Your task to perform on an android device: set default search engine in the chrome app Image 0: 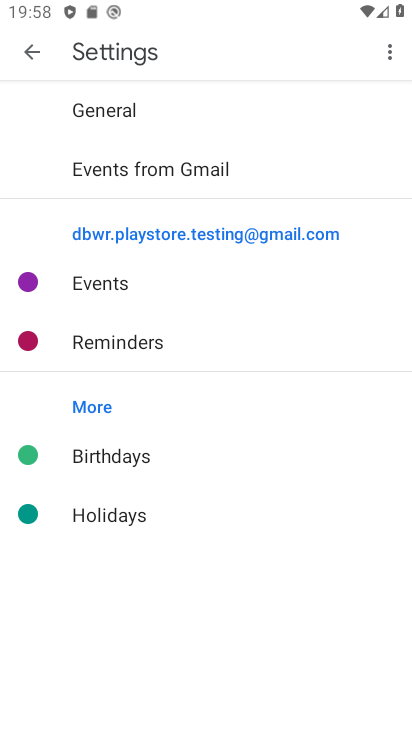
Step 0: press back button
Your task to perform on an android device: set default search engine in the chrome app Image 1: 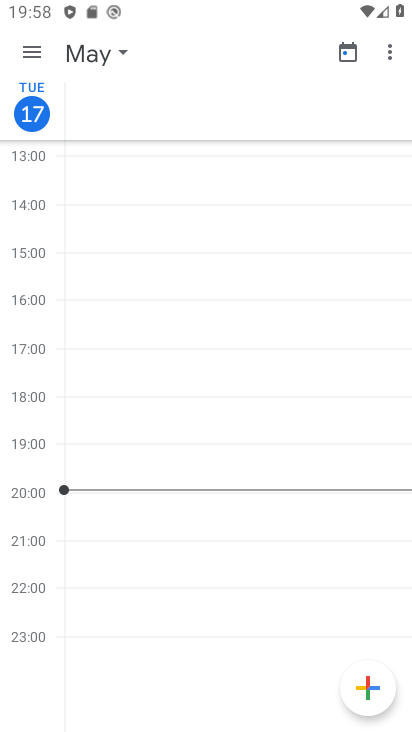
Step 1: press back button
Your task to perform on an android device: set default search engine in the chrome app Image 2: 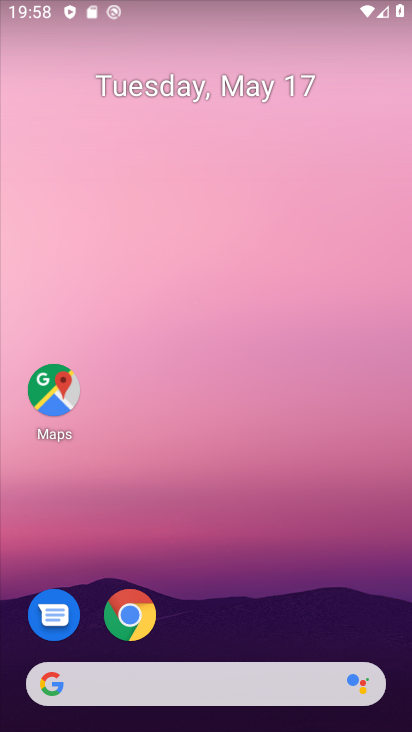
Step 2: click (122, 618)
Your task to perform on an android device: set default search engine in the chrome app Image 3: 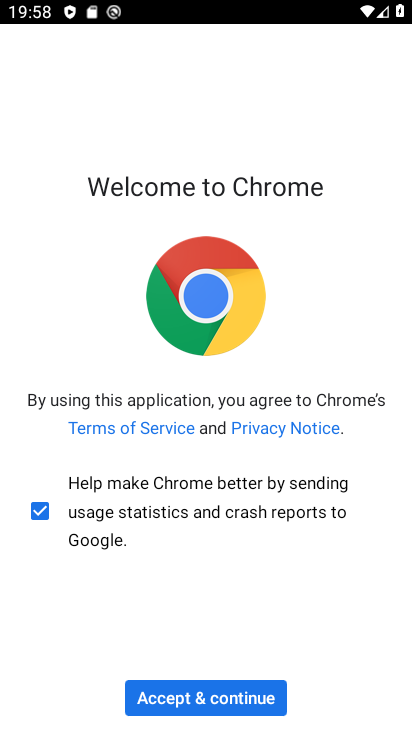
Step 3: click (195, 718)
Your task to perform on an android device: set default search engine in the chrome app Image 4: 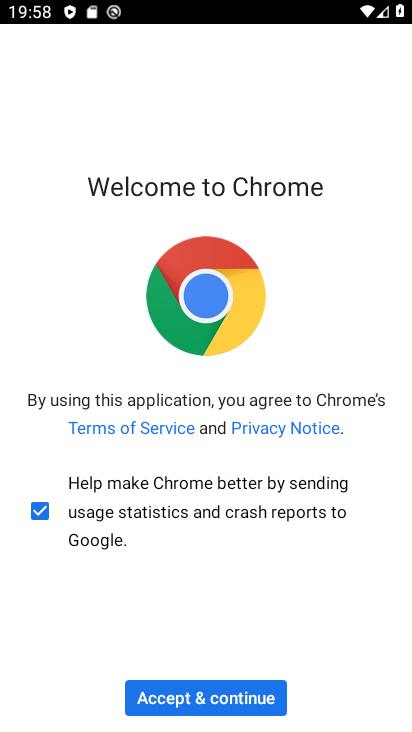
Step 4: click (207, 695)
Your task to perform on an android device: set default search engine in the chrome app Image 5: 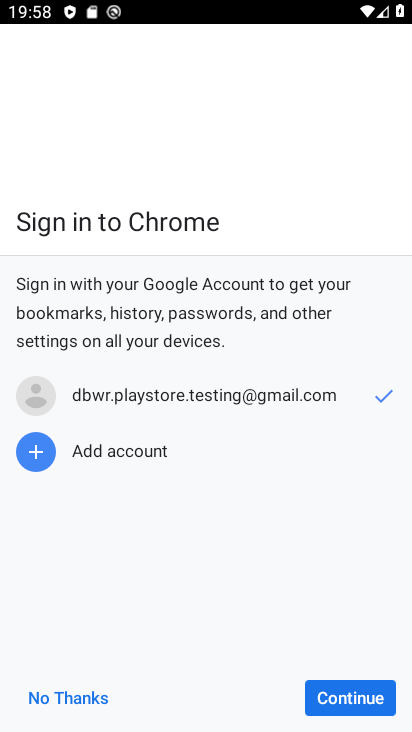
Step 5: click (382, 703)
Your task to perform on an android device: set default search engine in the chrome app Image 6: 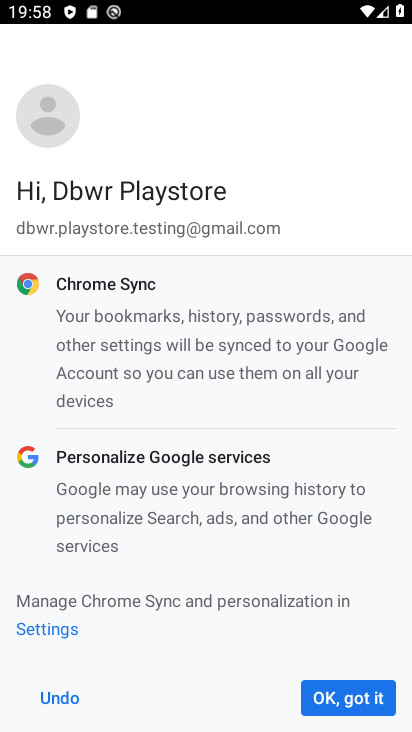
Step 6: click (360, 690)
Your task to perform on an android device: set default search engine in the chrome app Image 7: 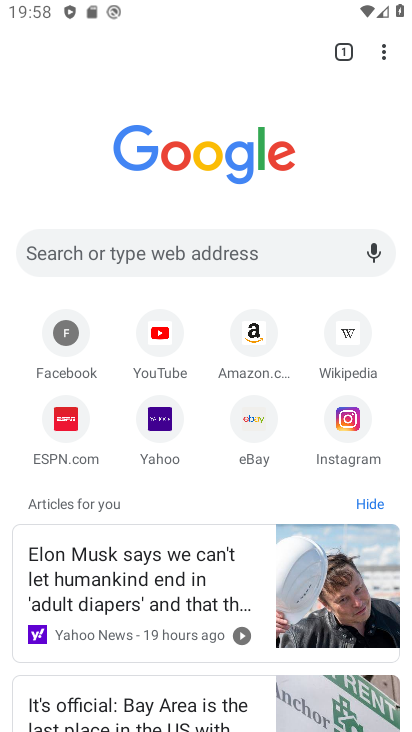
Step 7: drag from (387, 43) to (200, 446)
Your task to perform on an android device: set default search engine in the chrome app Image 8: 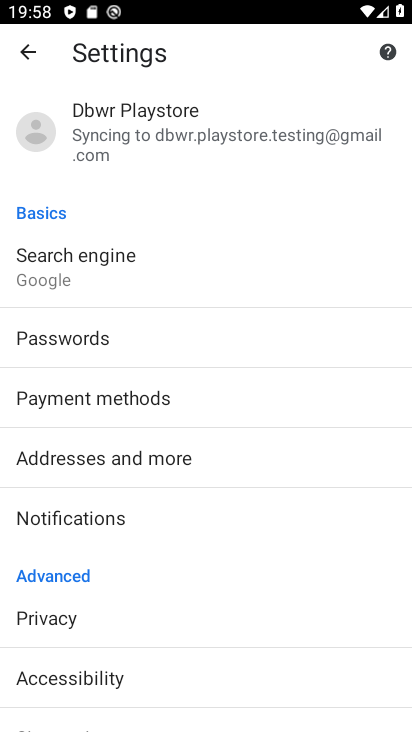
Step 8: click (75, 260)
Your task to perform on an android device: set default search engine in the chrome app Image 9: 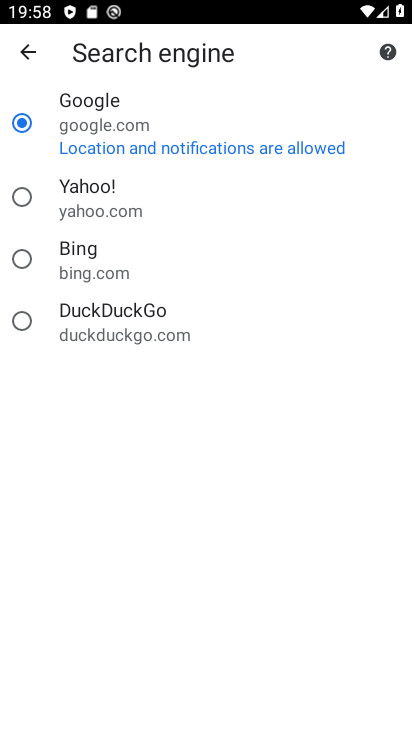
Step 9: click (33, 199)
Your task to perform on an android device: set default search engine in the chrome app Image 10: 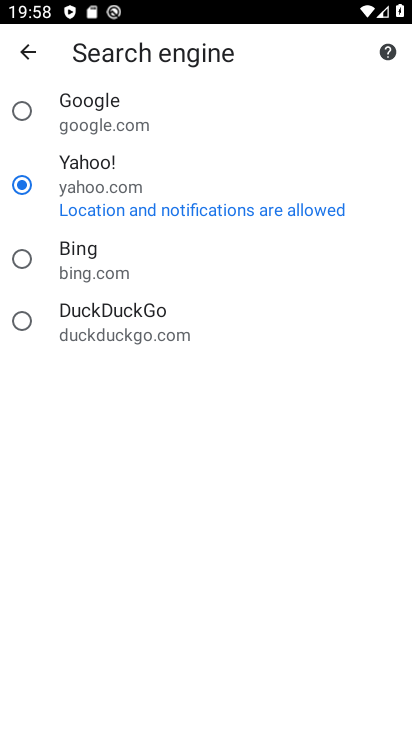
Step 10: task complete